Your task to perform on an android device: toggle sleep mode Image 0: 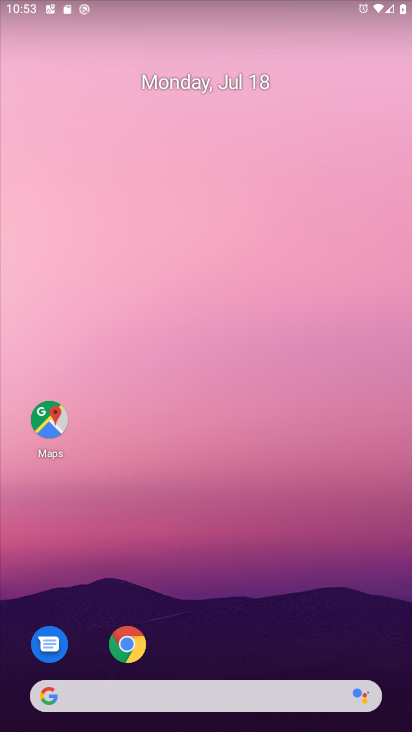
Step 0: drag from (248, 640) to (271, 8)
Your task to perform on an android device: toggle sleep mode Image 1: 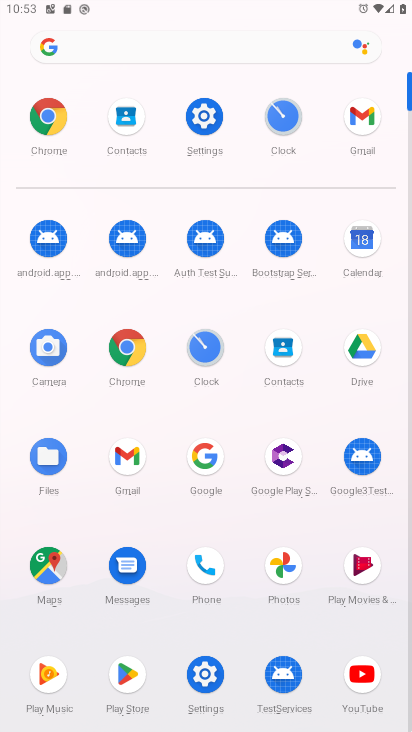
Step 1: click (192, 133)
Your task to perform on an android device: toggle sleep mode Image 2: 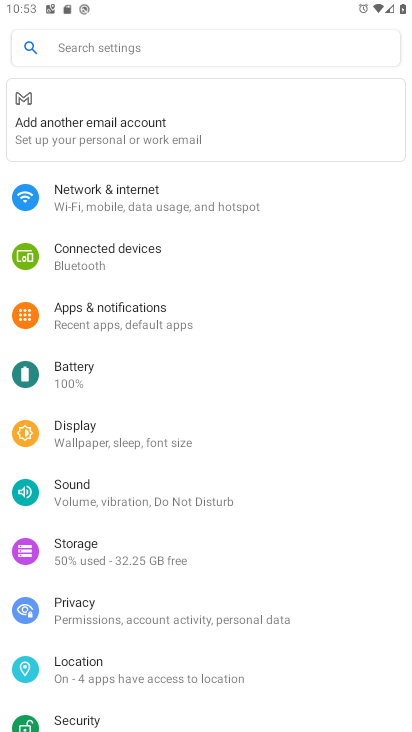
Step 2: click (126, 506)
Your task to perform on an android device: toggle sleep mode Image 3: 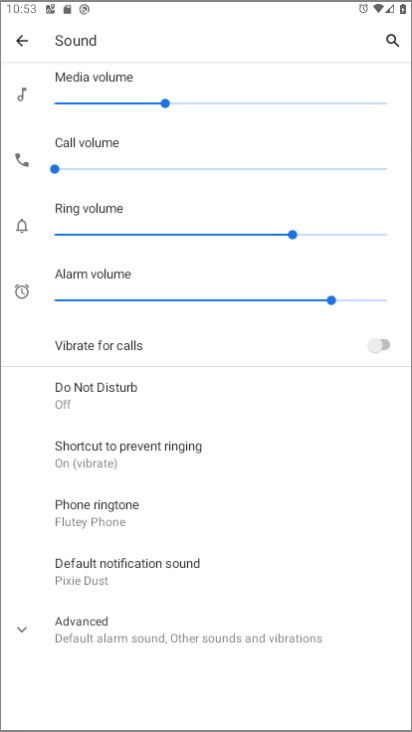
Step 3: task complete